Your task to perform on an android device: Open sound settings Image 0: 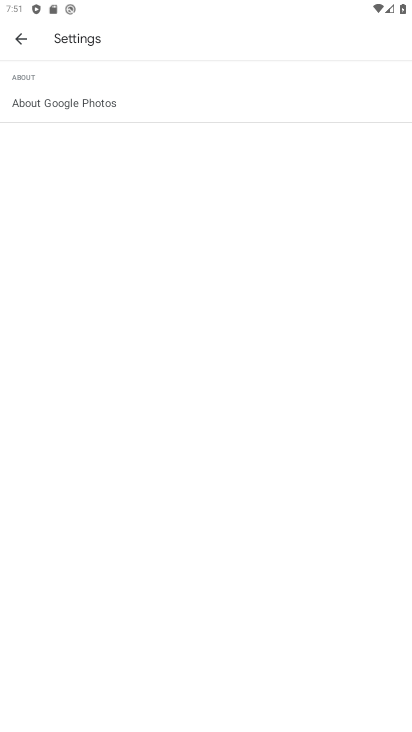
Step 0: drag from (262, 575) to (182, 91)
Your task to perform on an android device: Open sound settings Image 1: 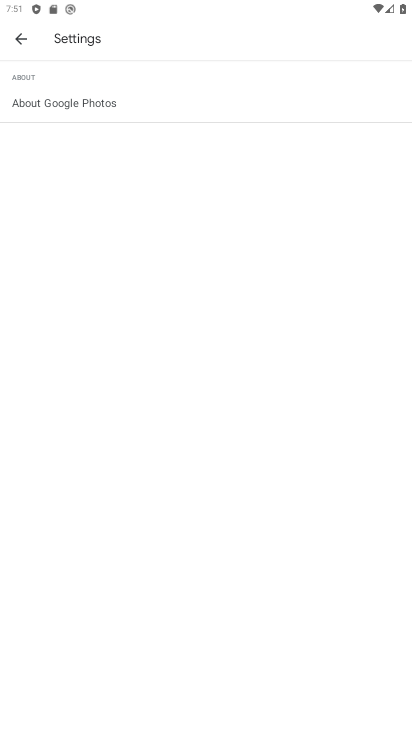
Step 1: press home button
Your task to perform on an android device: Open sound settings Image 2: 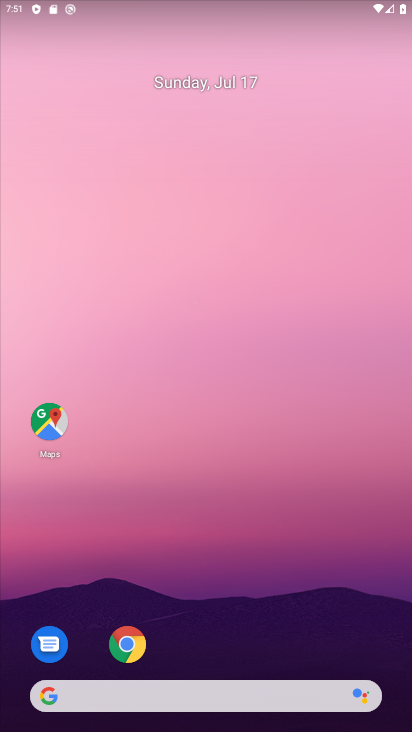
Step 2: drag from (246, 582) to (150, 64)
Your task to perform on an android device: Open sound settings Image 3: 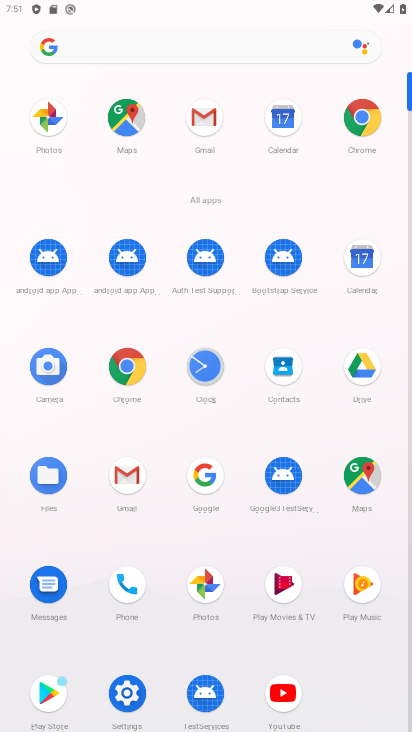
Step 3: click (133, 683)
Your task to perform on an android device: Open sound settings Image 4: 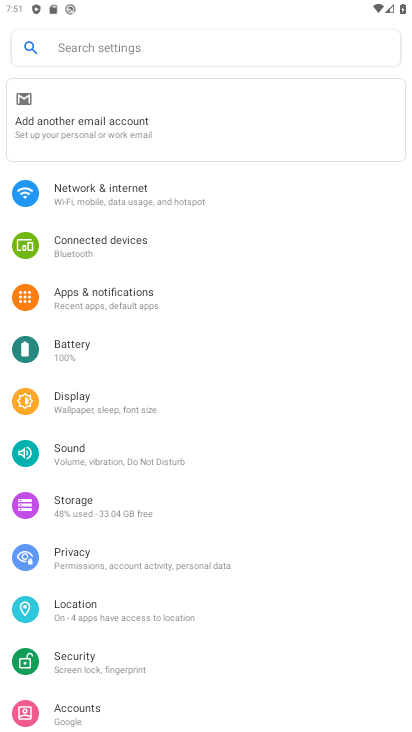
Step 4: click (72, 449)
Your task to perform on an android device: Open sound settings Image 5: 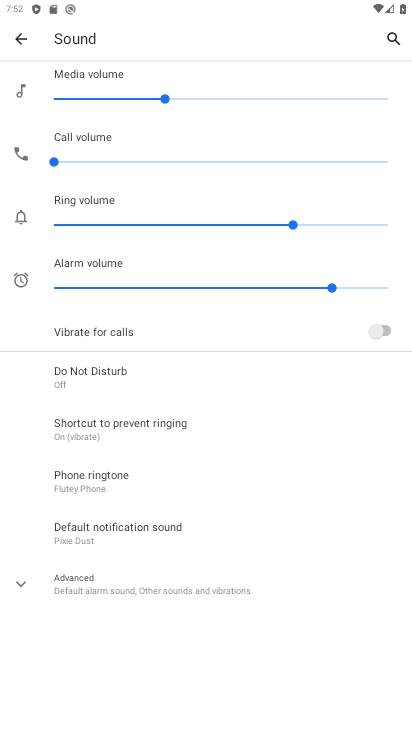
Step 5: task complete